Your task to perform on an android device: clear history in the chrome app Image 0: 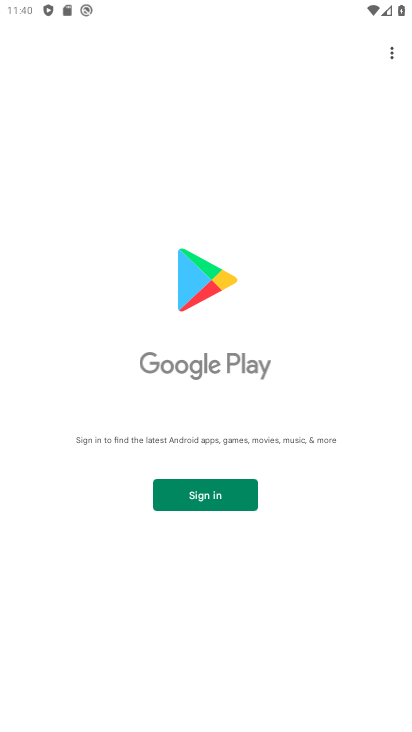
Step 0: press home button
Your task to perform on an android device: clear history in the chrome app Image 1: 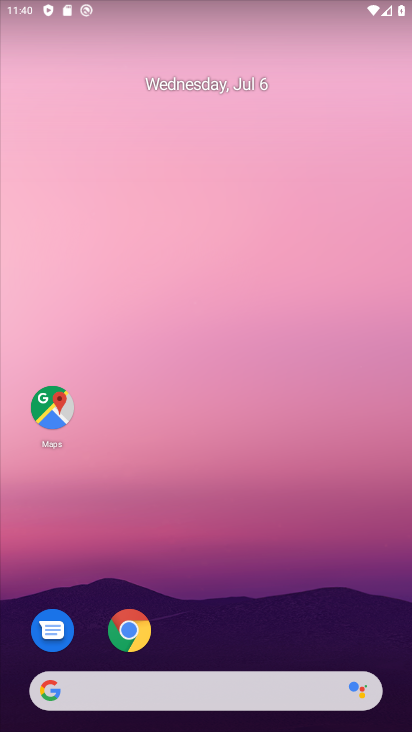
Step 1: click (114, 632)
Your task to perform on an android device: clear history in the chrome app Image 2: 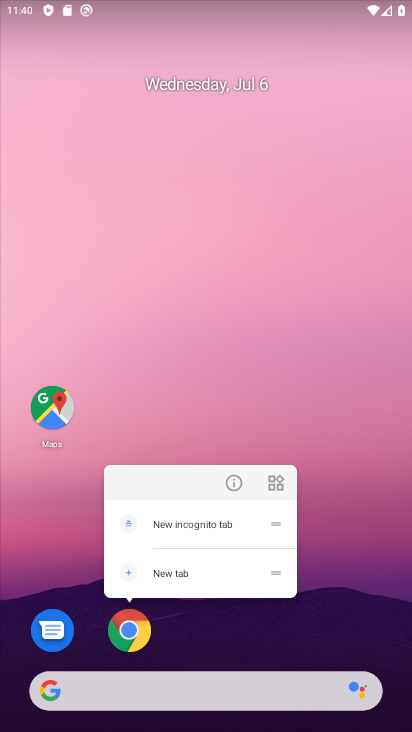
Step 2: click (135, 627)
Your task to perform on an android device: clear history in the chrome app Image 3: 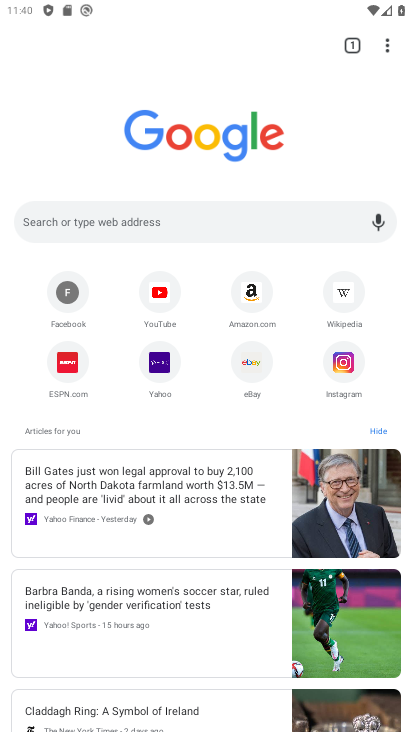
Step 3: click (387, 45)
Your task to perform on an android device: clear history in the chrome app Image 4: 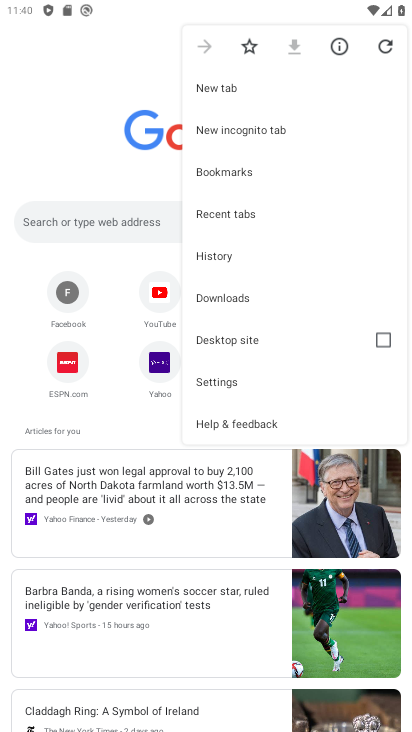
Step 4: click (223, 265)
Your task to perform on an android device: clear history in the chrome app Image 5: 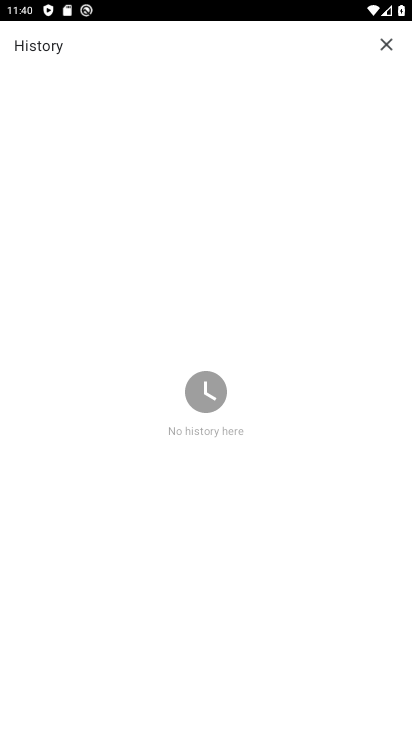
Step 5: task complete